Your task to perform on an android device: change notification settings in the gmail app Image 0: 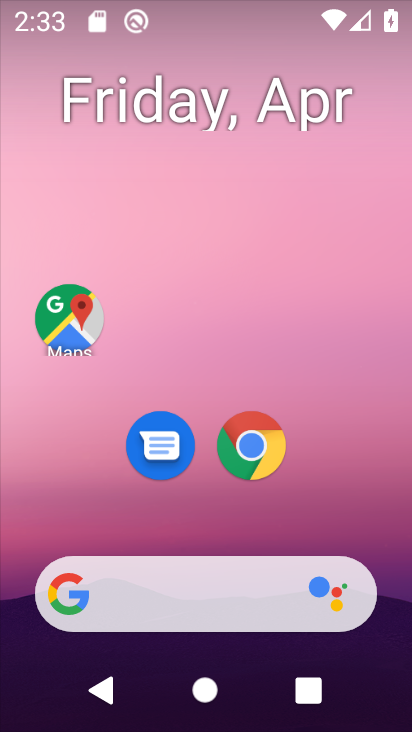
Step 0: drag from (321, 519) to (326, 27)
Your task to perform on an android device: change notification settings in the gmail app Image 1: 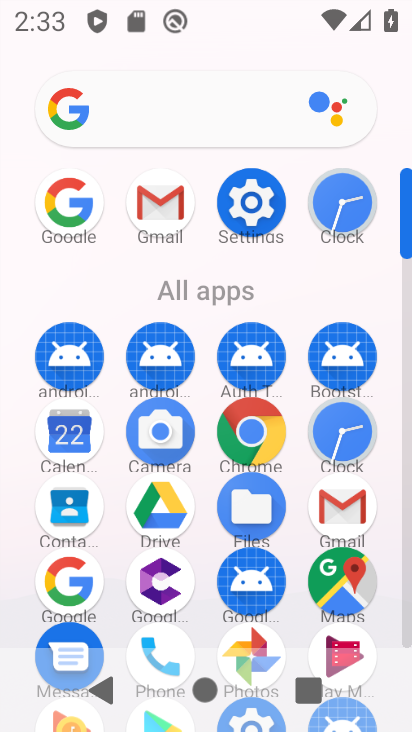
Step 1: click (160, 205)
Your task to perform on an android device: change notification settings in the gmail app Image 2: 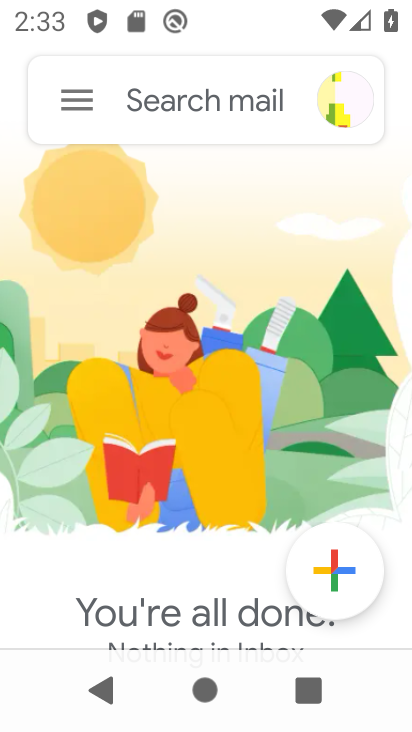
Step 2: click (88, 104)
Your task to perform on an android device: change notification settings in the gmail app Image 3: 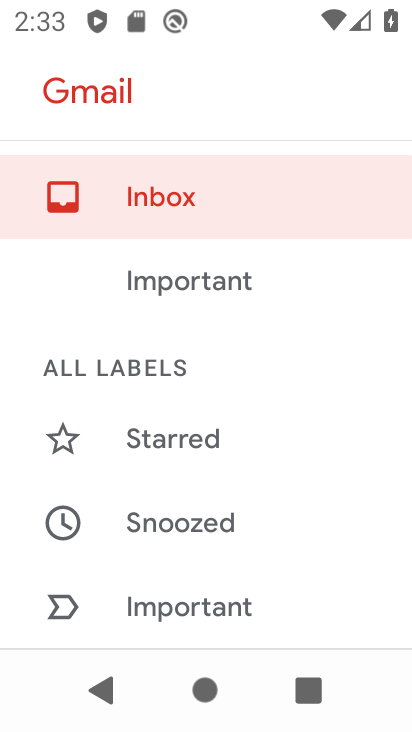
Step 3: drag from (166, 503) to (234, 340)
Your task to perform on an android device: change notification settings in the gmail app Image 4: 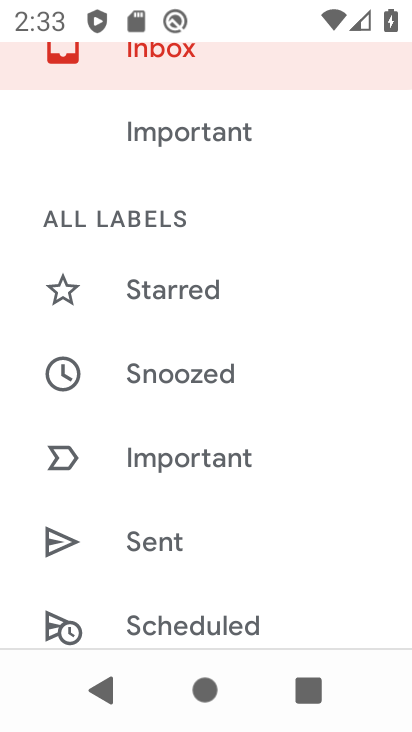
Step 4: drag from (197, 501) to (226, 348)
Your task to perform on an android device: change notification settings in the gmail app Image 5: 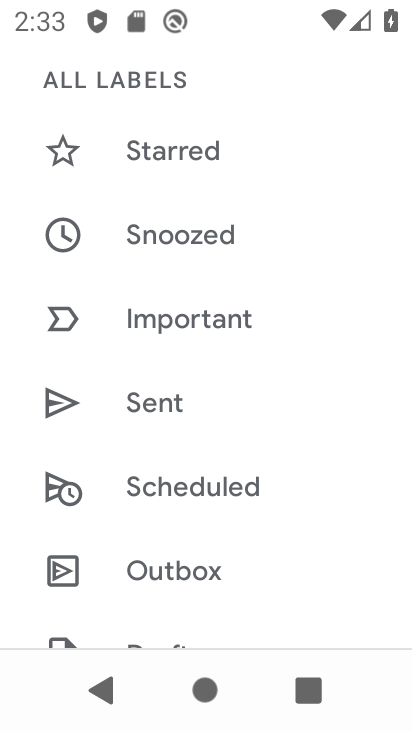
Step 5: drag from (193, 521) to (247, 375)
Your task to perform on an android device: change notification settings in the gmail app Image 6: 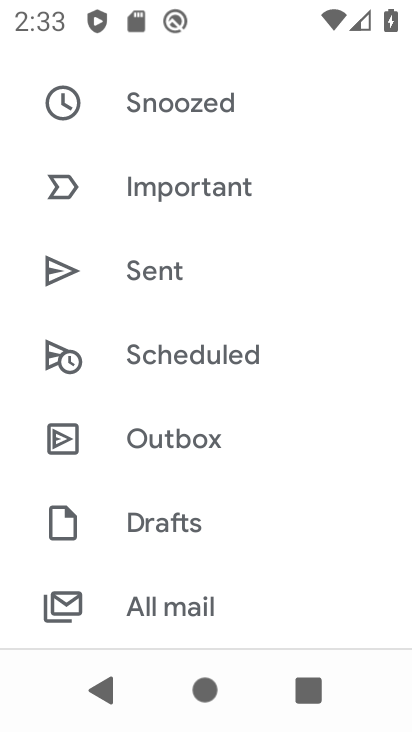
Step 6: drag from (196, 469) to (247, 326)
Your task to perform on an android device: change notification settings in the gmail app Image 7: 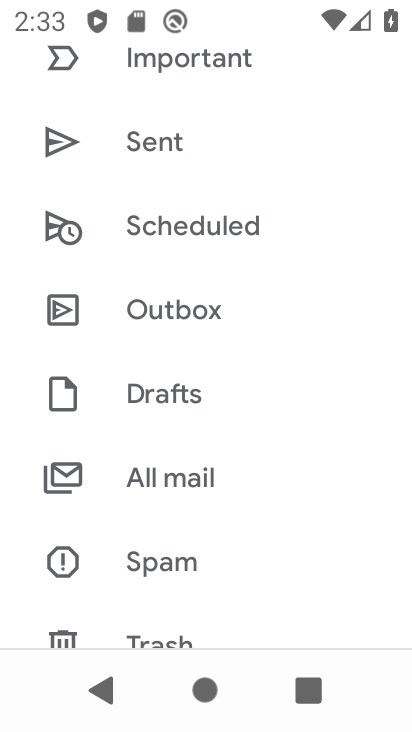
Step 7: drag from (197, 436) to (256, 304)
Your task to perform on an android device: change notification settings in the gmail app Image 8: 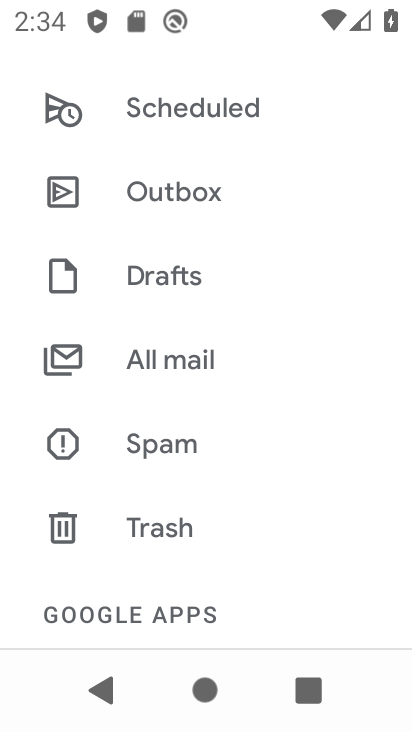
Step 8: drag from (145, 559) to (190, 408)
Your task to perform on an android device: change notification settings in the gmail app Image 9: 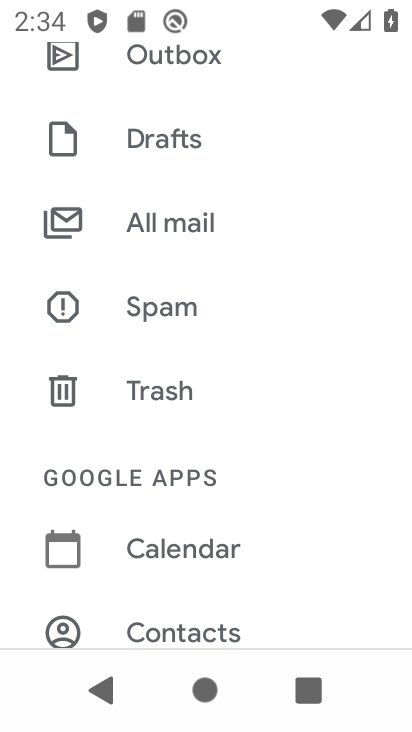
Step 9: drag from (179, 565) to (190, 459)
Your task to perform on an android device: change notification settings in the gmail app Image 10: 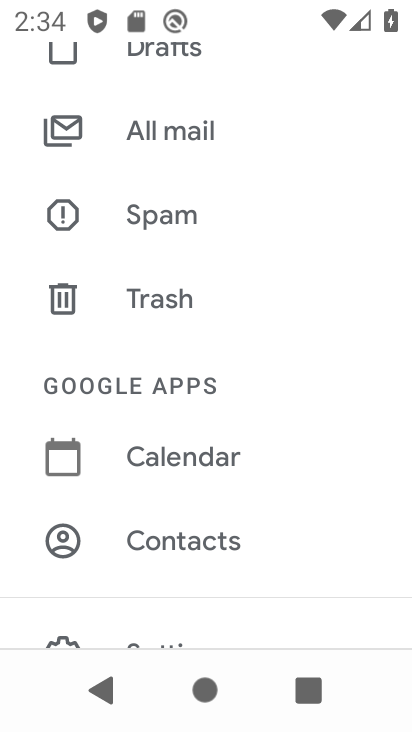
Step 10: drag from (188, 556) to (220, 431)
Your task to perform on an android device: change notification settings in the gmail app Image 11: 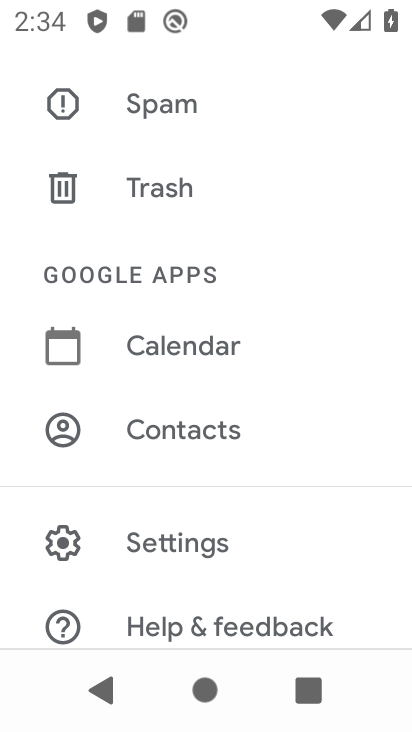
Step 11: drag from (189, 501) to (227, 341)
Your task to perform on an android device: change notification settings in the gmail app Image 12: 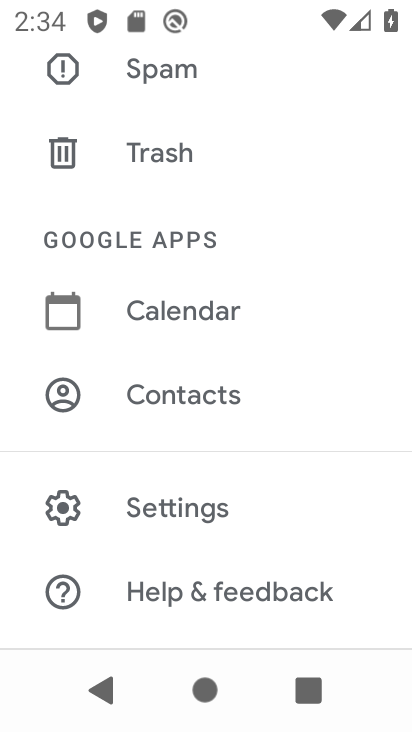
Step 12: click (185, 500)
Your task to perform on an android device: change notification settings in the gmail app Image 13: 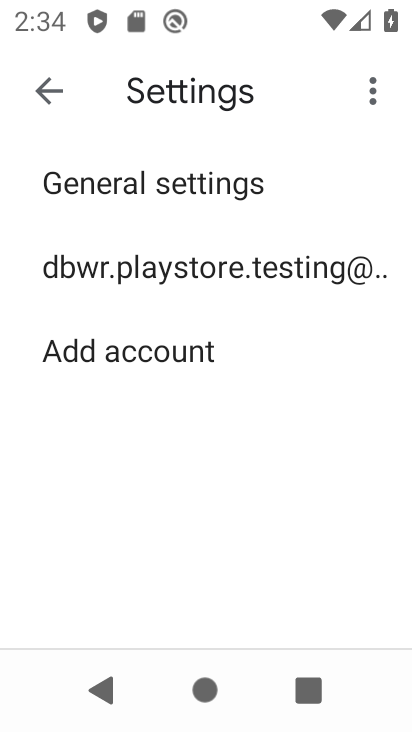
Step 13: click (252, 276)
Your task to perform on an android device: change notification settings in the gmail app Image 14: 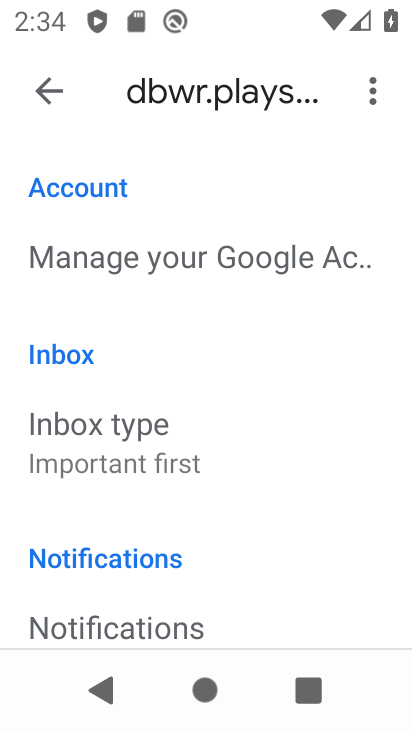
Step 14: drag from (197, 506) to (230, 340)
Your task to perform on an android device: change notification settings in the gmail app Image 15: 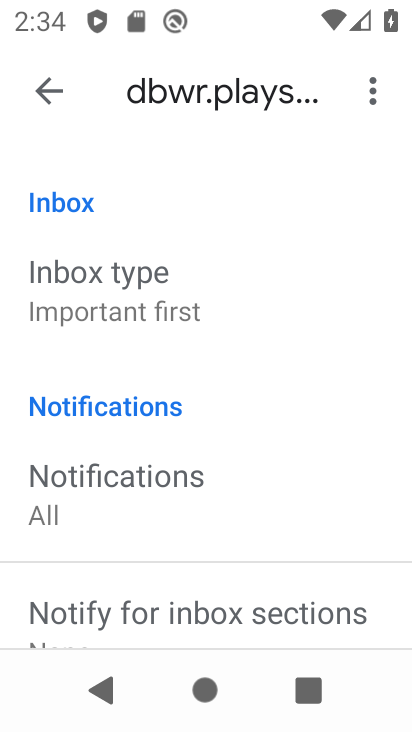
Step 15: drag from (214, 465) to (254, 305)
Your task to perform on an android device: change notification settings in the gmail app Image 16: 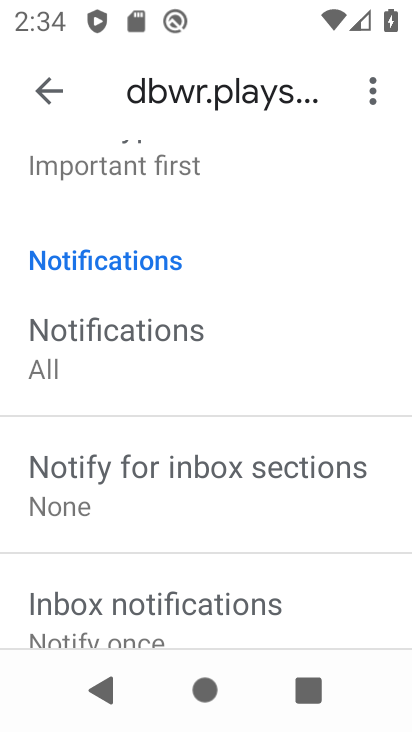
Step 16: drag from (191, 395) to (248, 280)
Your task to perform on an android device: change notification settings in the gmail app Image 17: 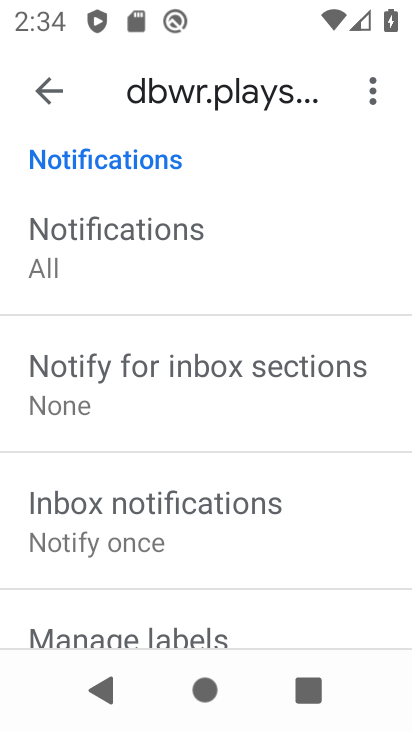
Step 17: drag from (181, 434) to (255, 309)
Your task to perform on an android device: change notification settings in the gmail app Image 18: 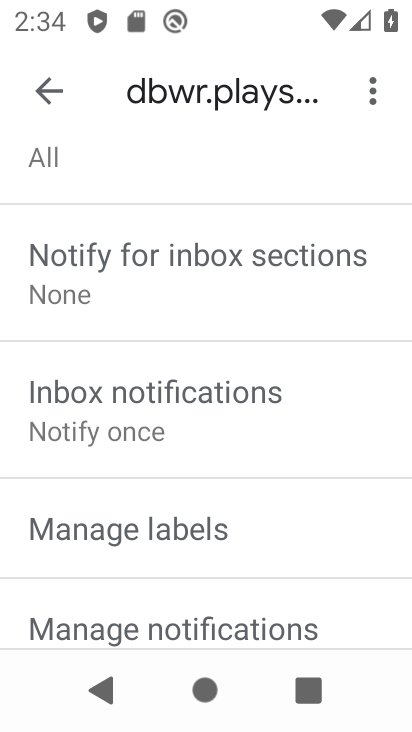
Step 18: drag from (231, 475) to (298, 351)
Your task to perform on an android device: change notification settings in the gmail app Image 19: 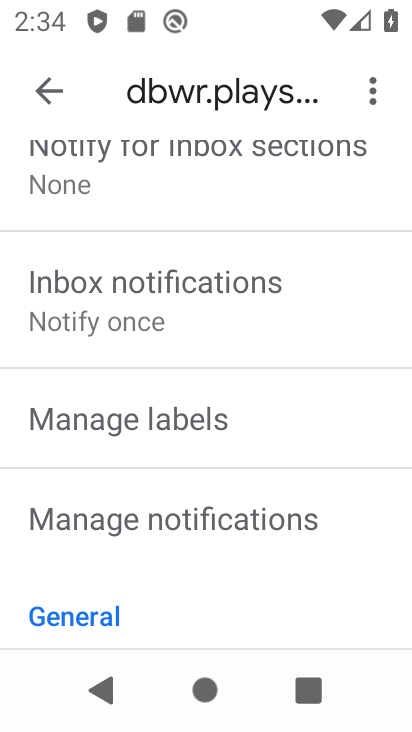
Step 19: click (234, 502)
Your task to perform on an android device: change notification settings in the gmail app Image 20: 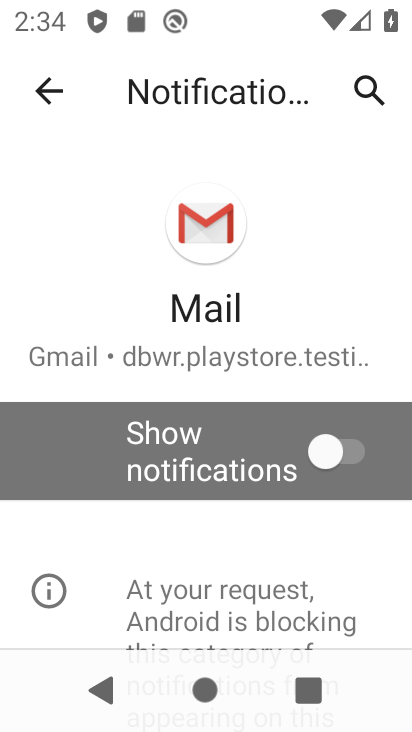
Step 20: click (333, 441)
Your task to perform on an android device: change notification settings in the gmail app Image 21: 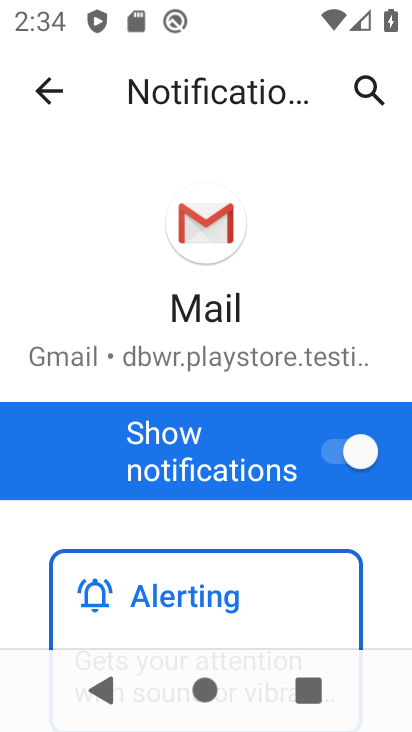
Step 21: task complete